Your task to perform on an android device: turn off location history Image 0: 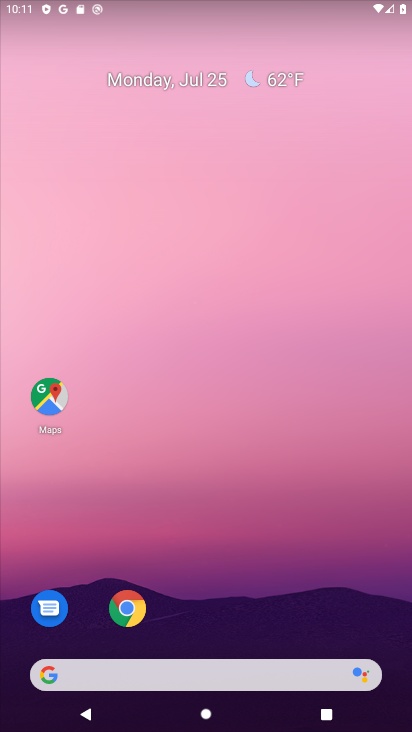
Step 0: drag from (254, 360) to (260, 253)
Your task to perform on an android device: turn off location history Image 1: 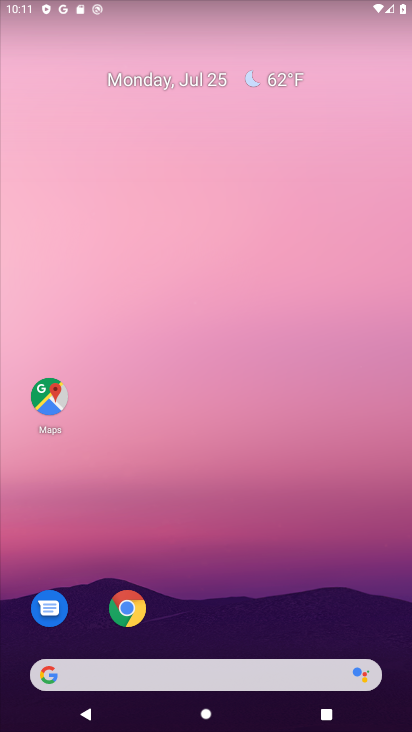
Step 1: drag from (260, 625) to (252, 91)
Your task to perform on an android device: turn off location history Image 2: 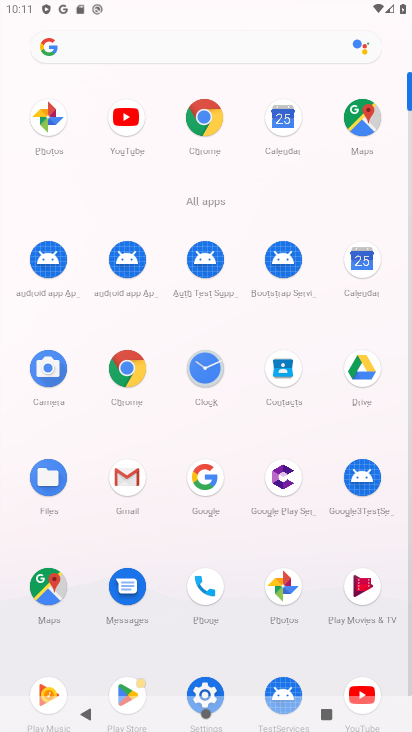
Step 2: click (203, 687)
Your task to perform on an android device: turn off location history Image 3: 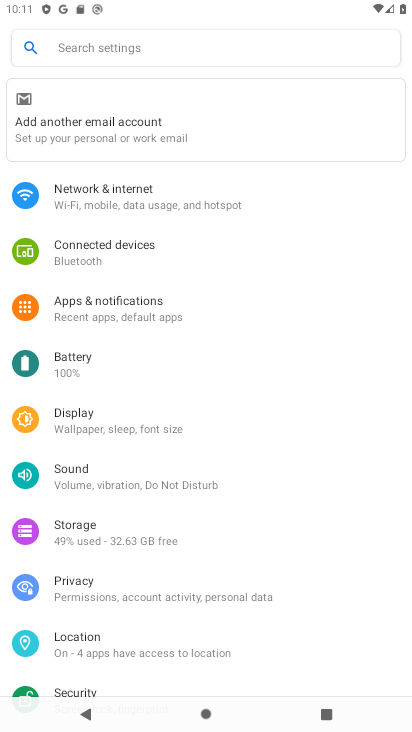
Step 3: click (89, 640)
Your task to perform on an android device: turn off location history Image 4: 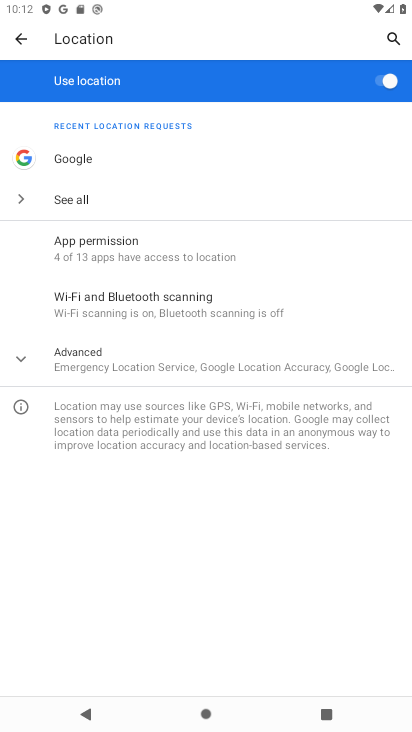
Step 4: click (388, 82)
Your task to perform on an android device: turn off location history Image 5: 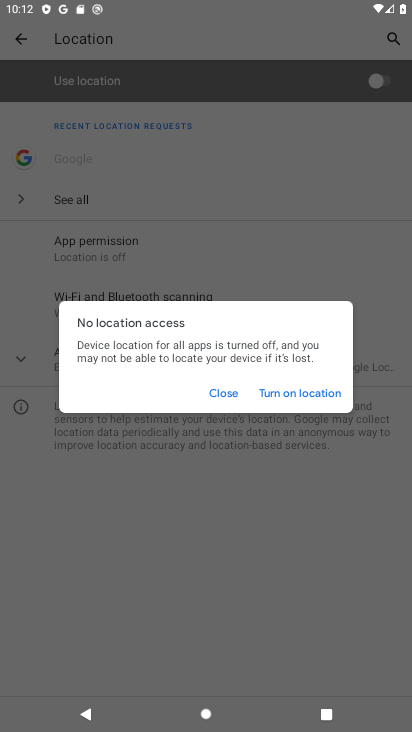
Step 5: task complete